Your task to perform on an android device: check google app version Image 0: 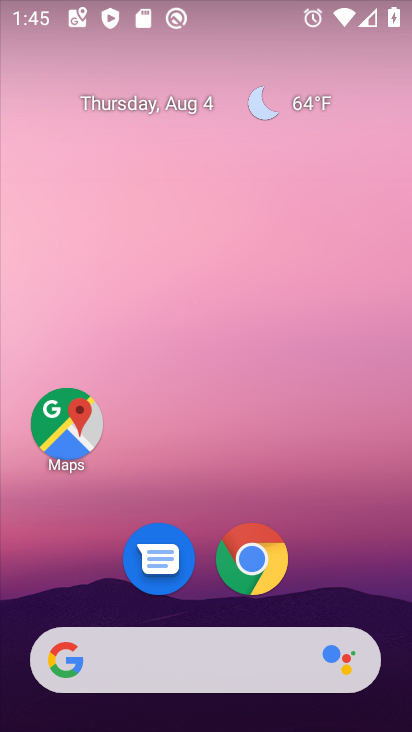
Step 0: drag from (165, 676) to (228, 52)
Your task to perform on an android device: check google app version Image 1: 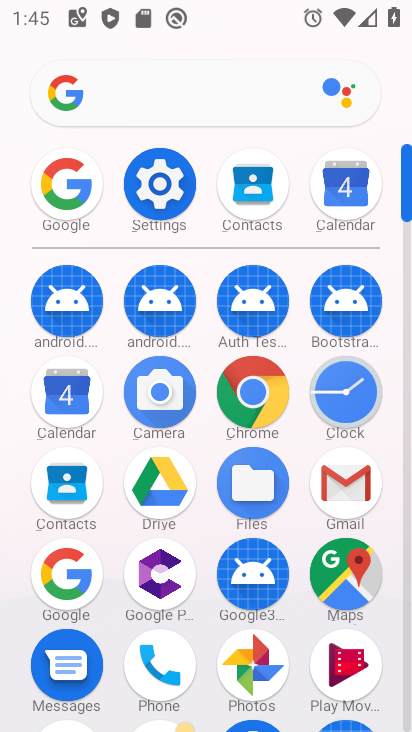
Step 1: click (66, 185)
Your task to perform on an android device: check google app version Image 2: 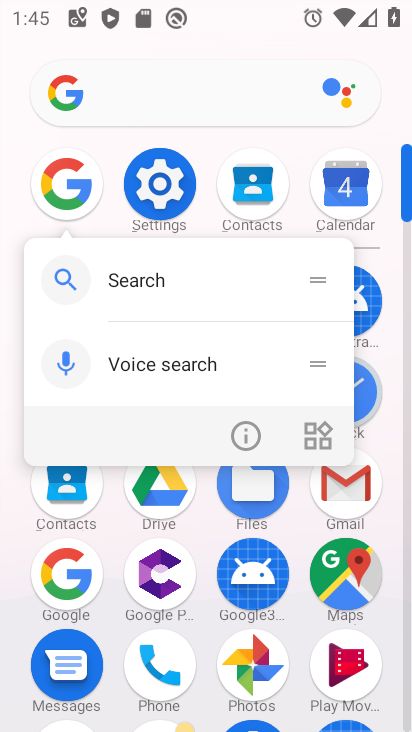
Step 2: click (244, 433)
Your task to perform on an android device: check google app version Image 3: 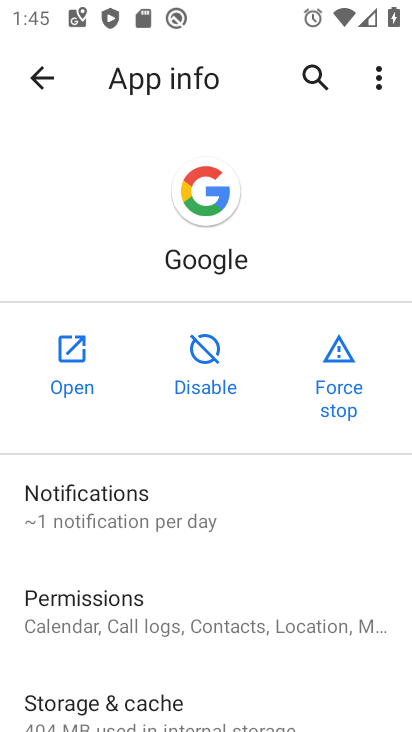
Step 3: drag from (194, 653) to (261, 505)
Your task to perform on an android device: check google app version Image 4: 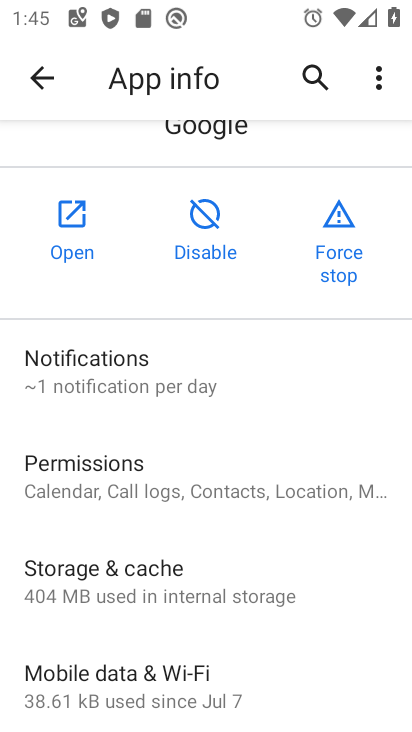
Step 4: drag from (217, 654) to (280, 469)
Your task to perform on an android device: check google app version Image 5: 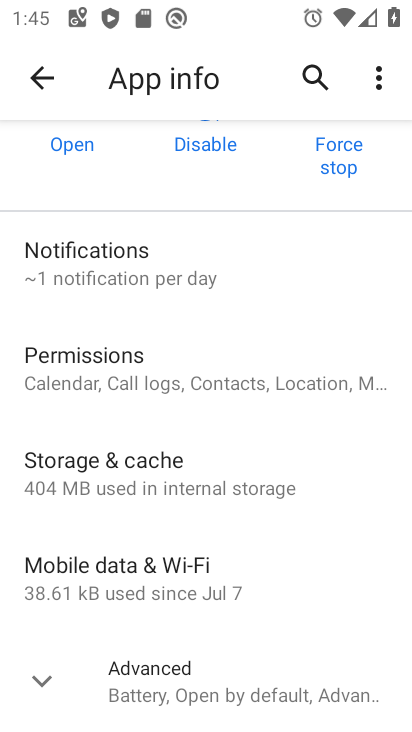
Step 5: click (186, 682)
Your task to perform on an android device: check google app version Image 6: 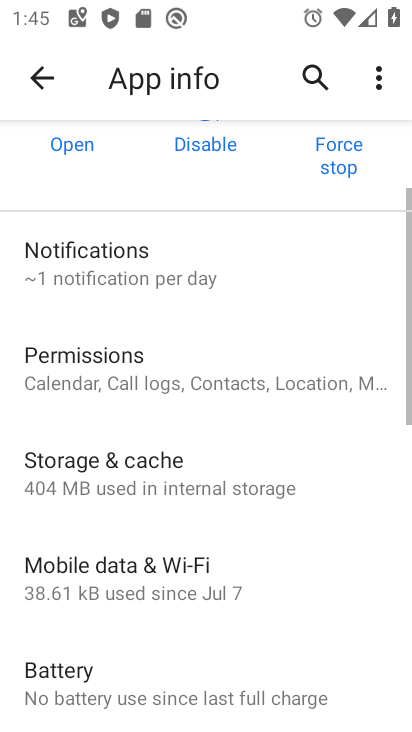
Step 6: task complete